Your task to perform on an android device: Open CNN.com Image 0: 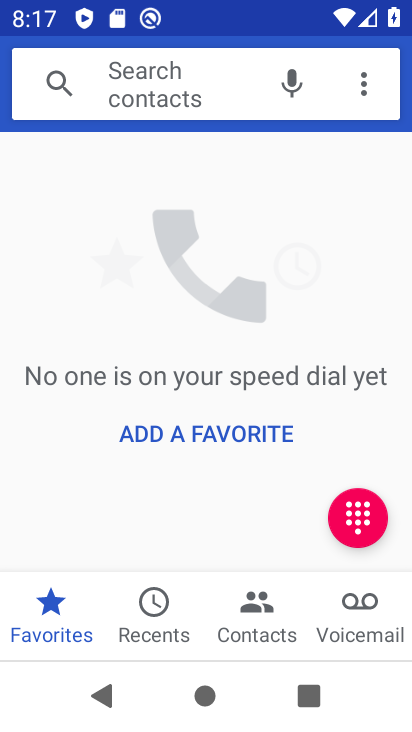
Step 0: press home button
Your task to perform on an android device: Open CNN.com Image 1: 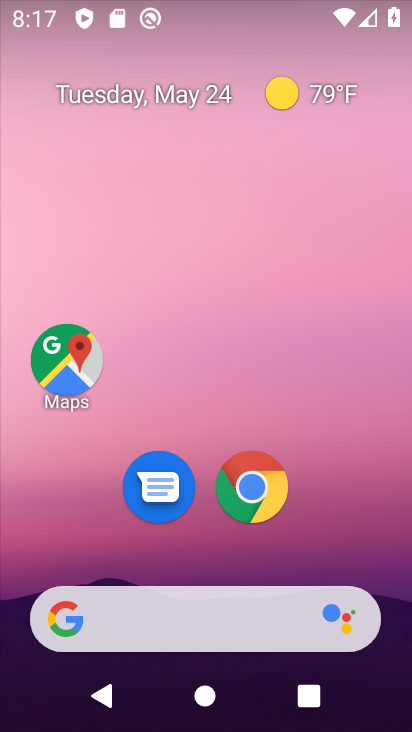
Step 1: click (246, 485)
Your task to perform on an android device: Open CNN.com Image 2: 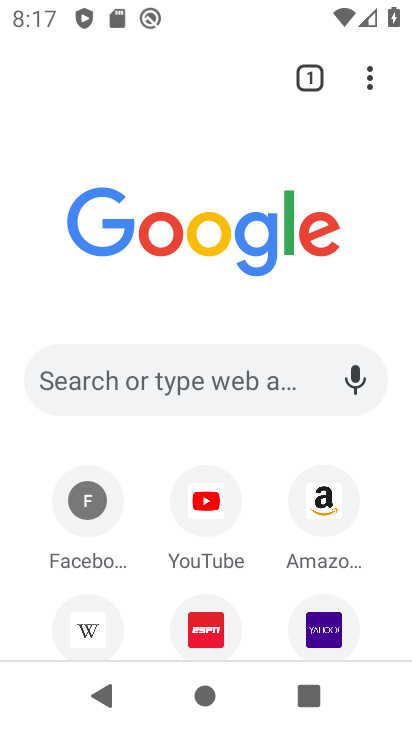
Step 2: click (187, 377)
Your task to perform on an android device: Open CNN.com Image 3: 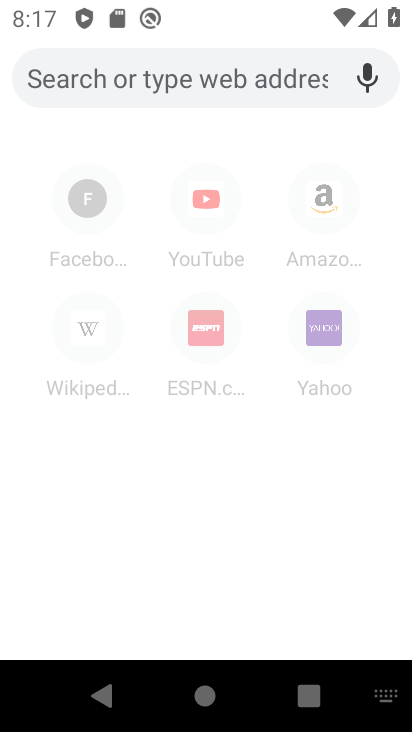
Step 3: type "CNN.com"
Your task to perform on an android device: Open CNN.com Image 4: 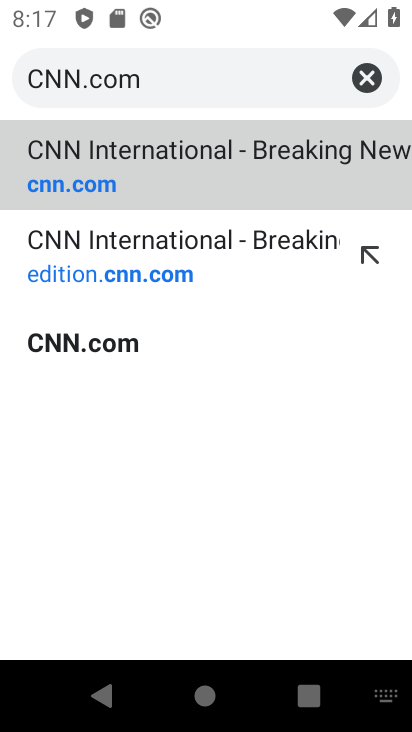
Step 4: click (66, 179)
Your task to perform on an android device: Open CNN.com Image 5: 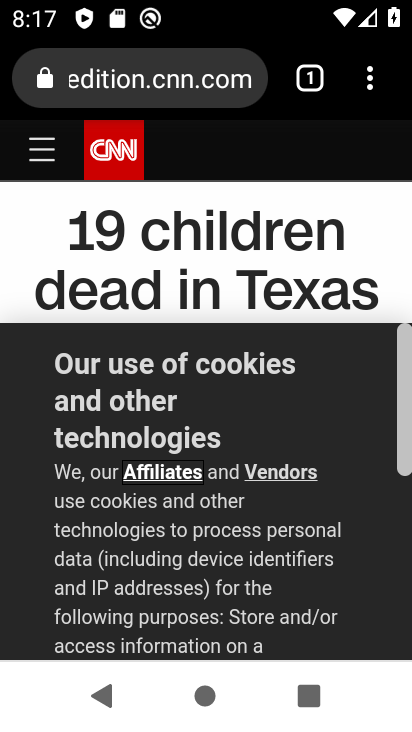
Step 5: task complete